Your task to perform on an android device: see creations saved in the google photos Image 0: 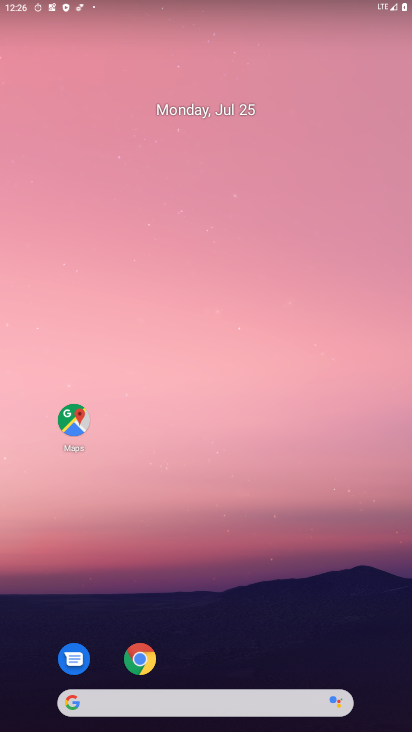
Step 0: drag from (40, 698) to (222, 297)
Your task to perform on an android device: see creations saved in the google photos Image 1: 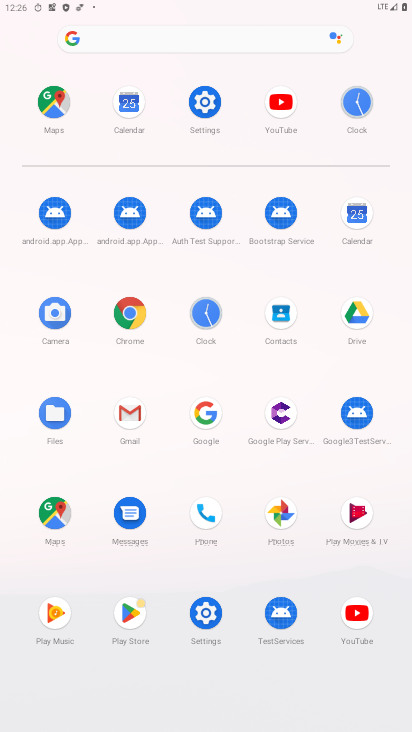
Step 1: click (294, 513)
Your task to perform on an android device: see creations saved in the google photos Image 2: 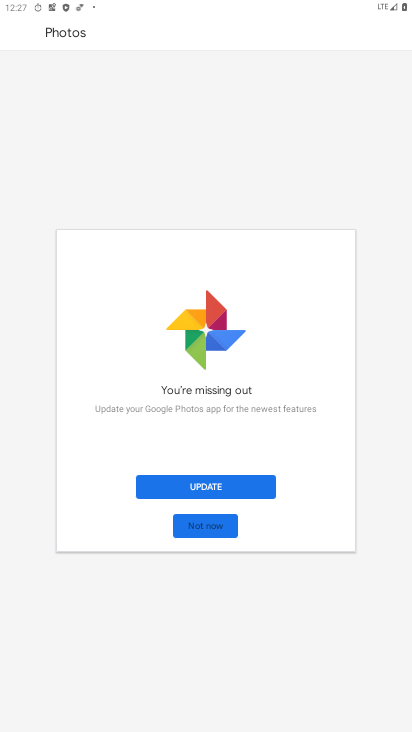
Step 2: task complete